Your task to perform on an android device: manage bookmarks in the chrome app Image 0: 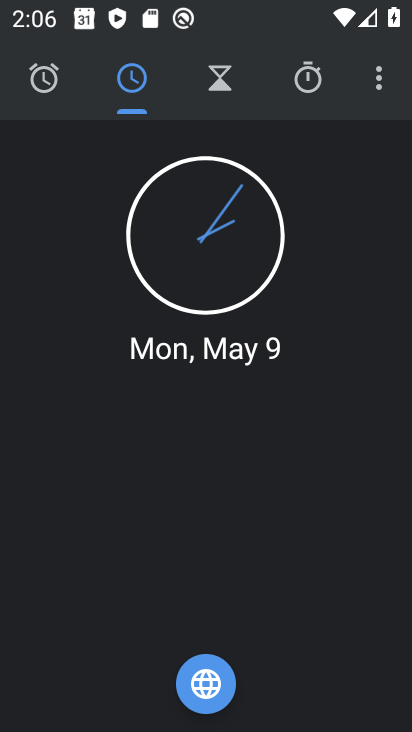
Step 0: press home button
Your task to perform on an android device: manage bookmarks in the chrome app Image 1: 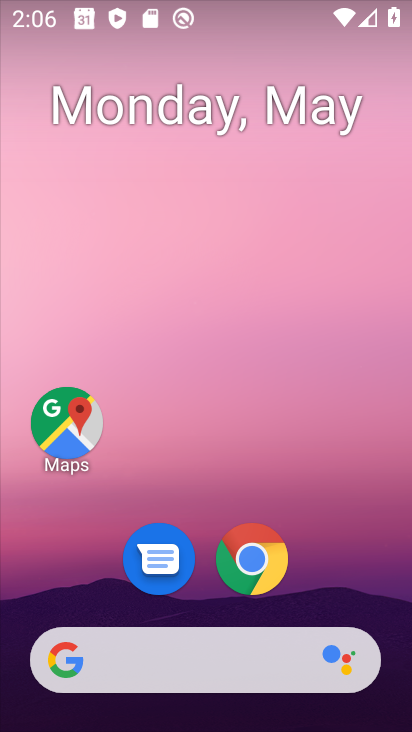
Step 1: click (249, 560)
Your task to perform on an android device: manage bookmarks in the chrome app Image 2: 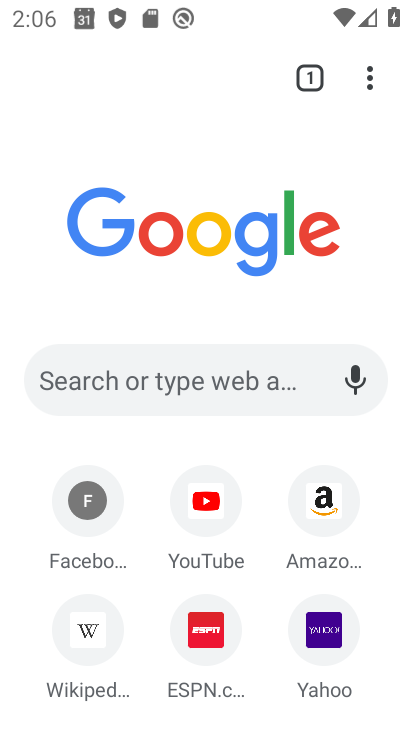
Step 2: drag from (370, 80) to (109, 292)
Your task to perform on an android device: manage bookmarks in the chrome app Image 3: 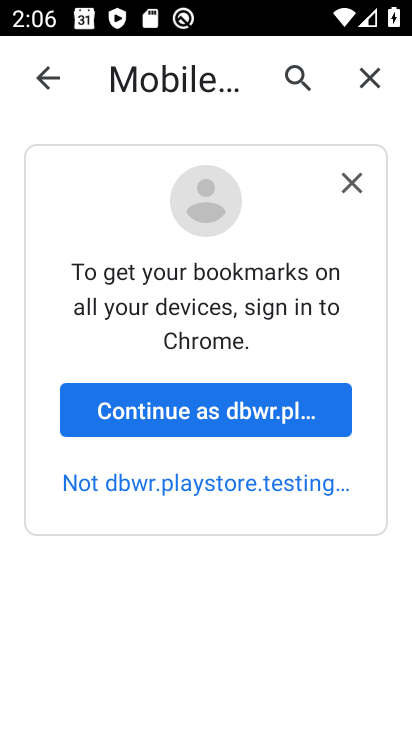
Step 3: click (180, 410)
Your task to perform on an android device: manage bookmarks in the chrome app Image 4: 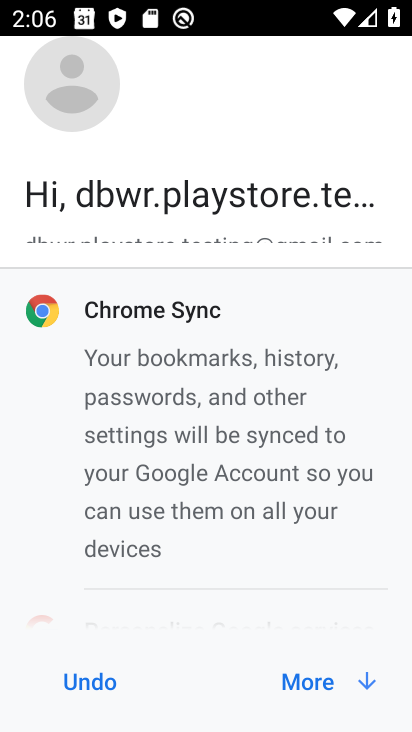
Step 4: click (299, 685)
Your task to perform on an android device: manage bookmarks in the chrome app Image 5: 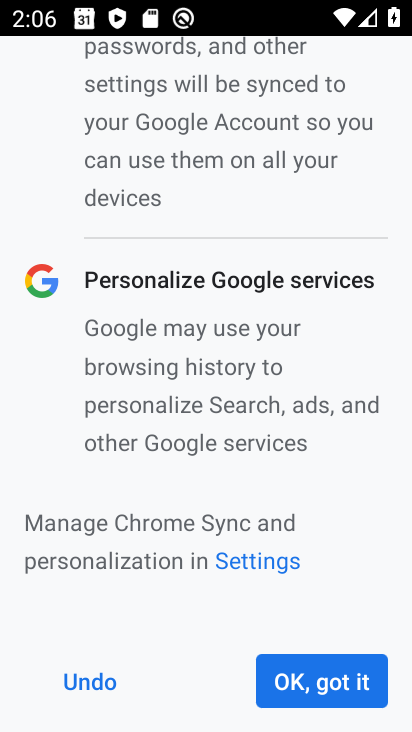
Step 5: click (299, 685)
Your task to perform on an android device: manage bookmarks in the chrome app Image 6: 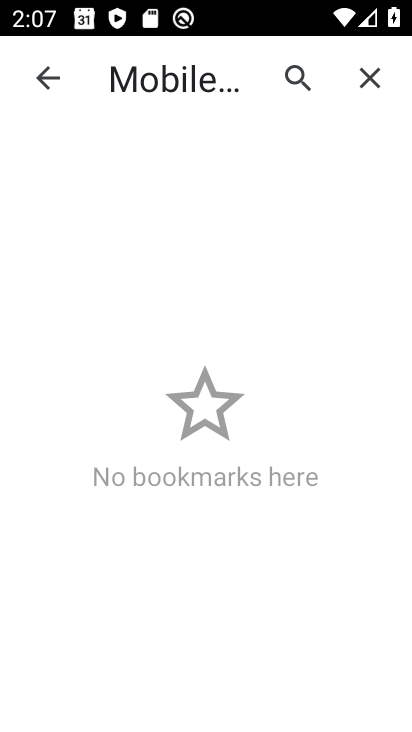
Step 6: task complete